Your task to perform on an android device: remove spam from my inbox in the gmail app Image 0: 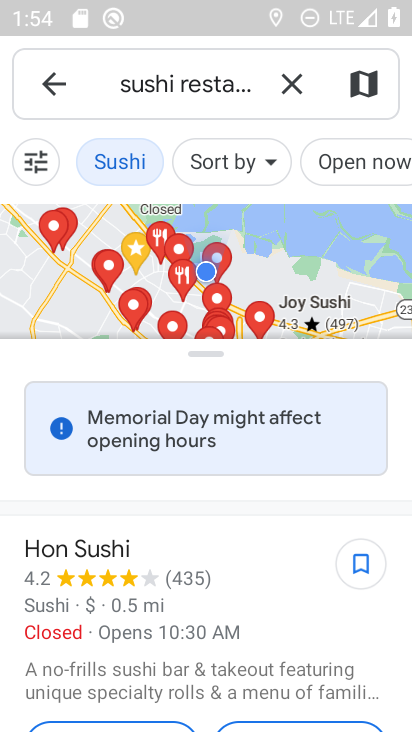
Step 0: press home button
Your task to perform on an android device: remove spam from my inbox in the gmail app Image 1: 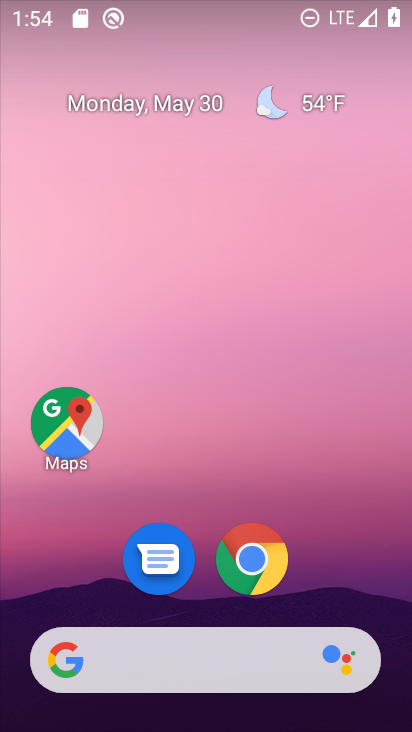
Step 1: drag from (331, 598) to (324, 52)
Your task to perform on an android device: remove spam from my inbox in the gmail app Image 2: 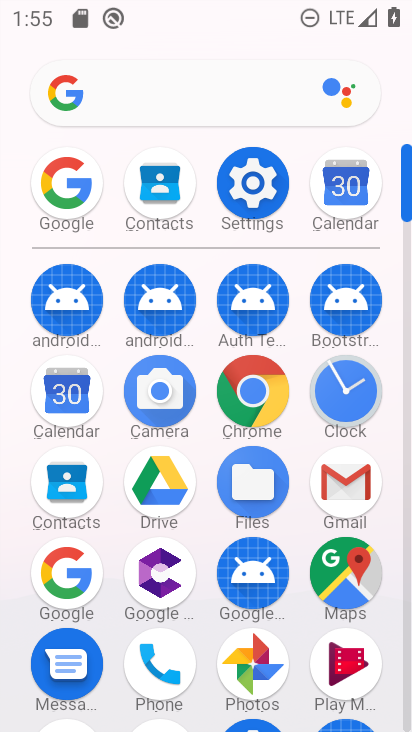
Step 2: click (338, 482)
Your task to perform on an android device: remove spam from my inbox in the gmail app Image 3: 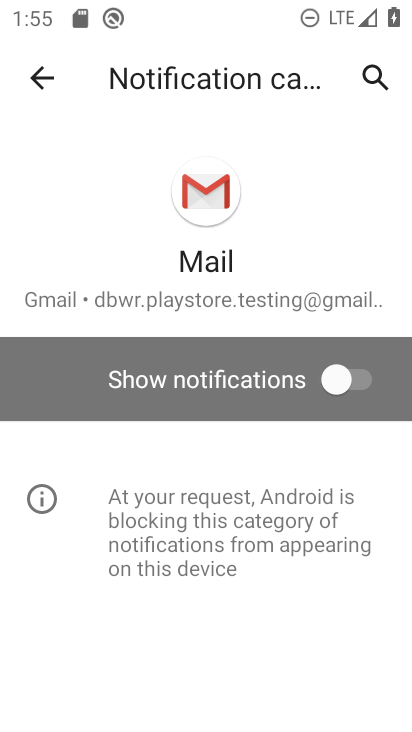
Step 3: click (45, 73)
Your task to perform on an android device: remove spam from my inbox in the gmail app Image 4: 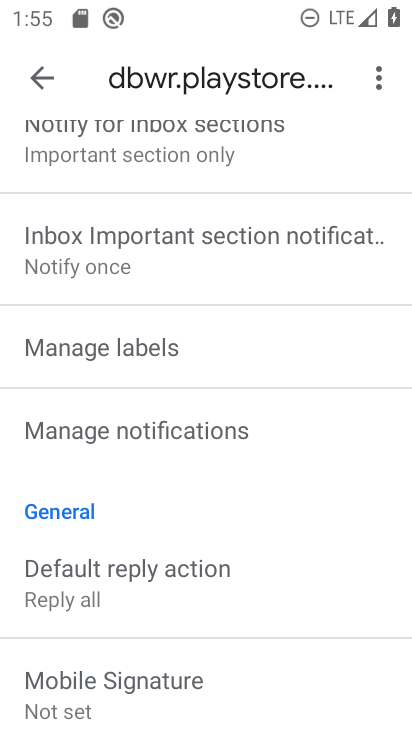
Step 4: click (38, 88)
Your task to perform on an android device: remove spam from my inbox in the gmail app Image 5: 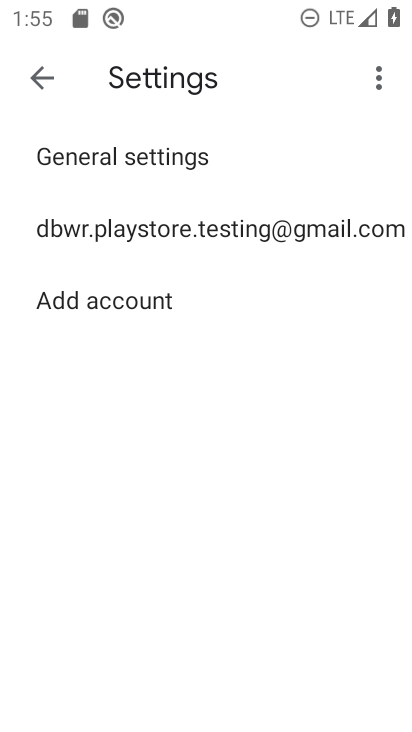
Step 5: click (39, 86)
Your task to perform on an android device: remove spam from my inbox in the gmail app Image 6: 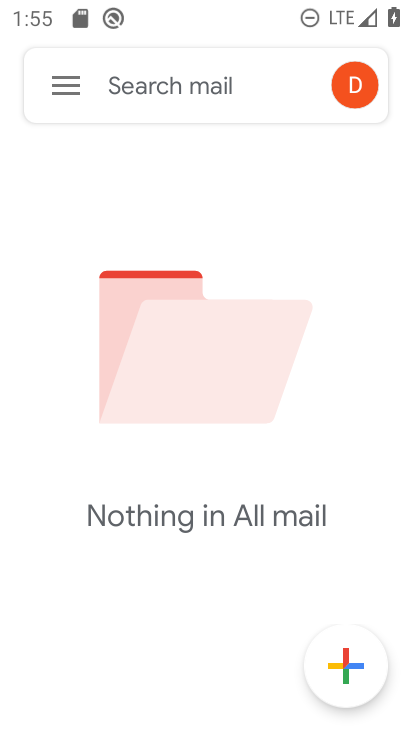
Step 6: click (59, 67)
Your task to perform on an android device: remove spam from my inbox in the gmail app Image 7: 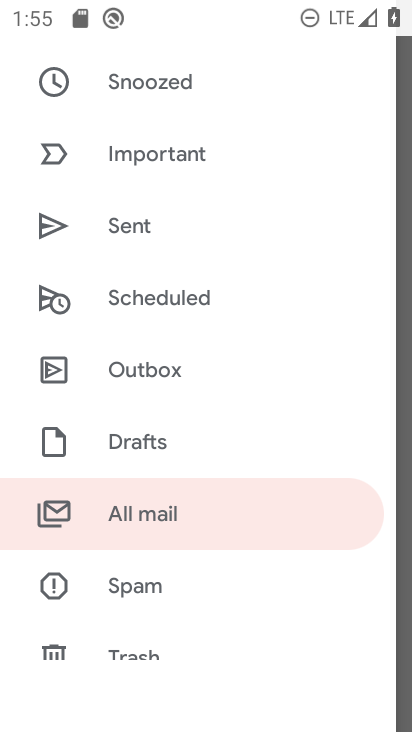
Step 7: click (139, 590)
Your task to perform on an android device: remove spam from my inbox in the gmail app Image 8: 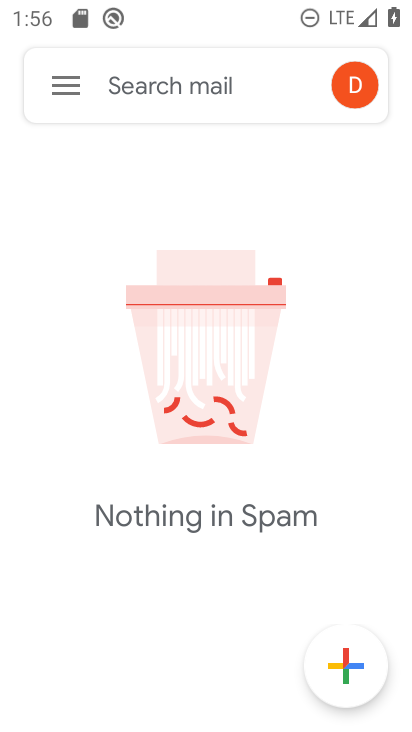
Step 8: task complete